Your task to perform on an android device: read, delete, or share a saved page in the chrome app Image 0: 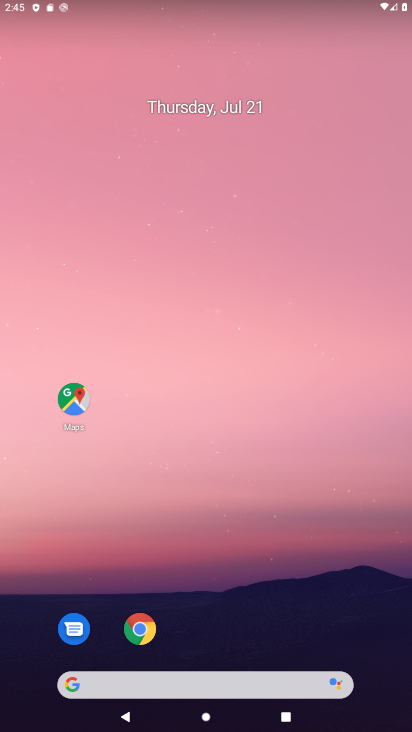
Step 0: press home button
Your task to perform on an android device: read, delete, or share a saved page in the chrome app Image 1: 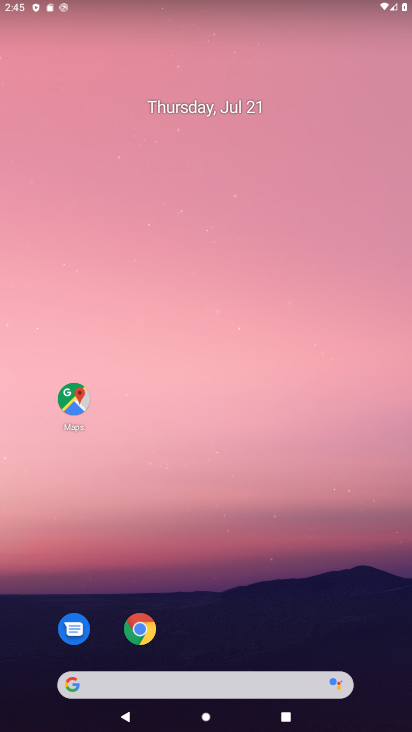
Step 1: drag from (270, 638) to (239, 71)
Your task to perform on an android device: read, delete, or share a saved page in the chrome app Image 2: 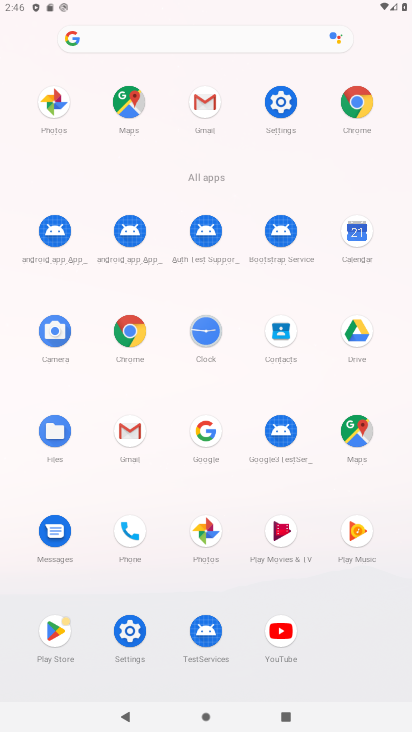
Step 2: click (132, 338)
Your task to perform on an android device: read, delete, or share a saved page in the chrome app Image 3: 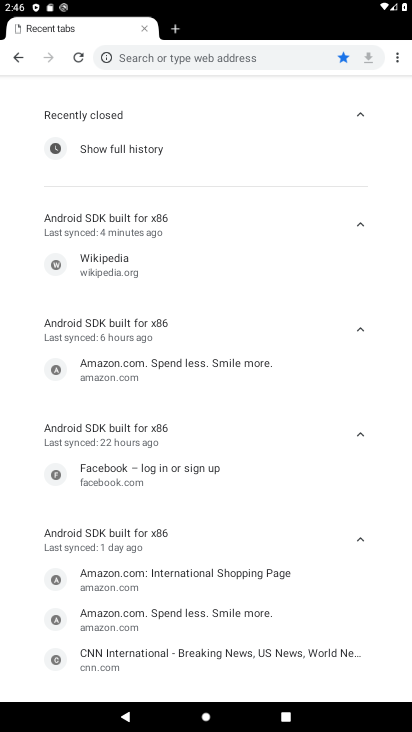
Step 3: task complete